Your task to perform on an android device: clear all cookies in the chrome app Image 0: 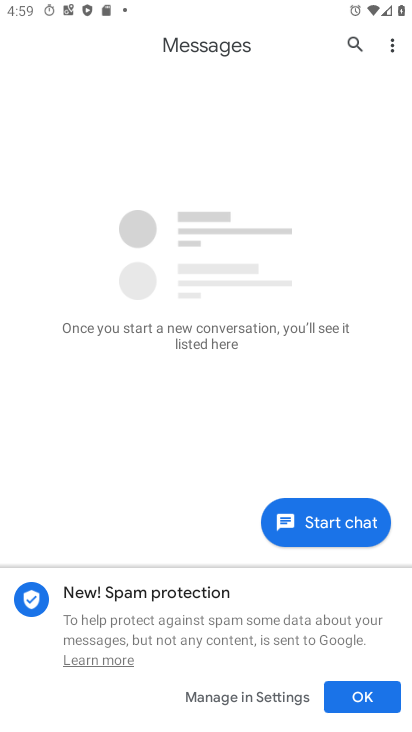
Step 0: press home button
Your task to perform on an android device: clear all cookies in the chrome app Image 1: 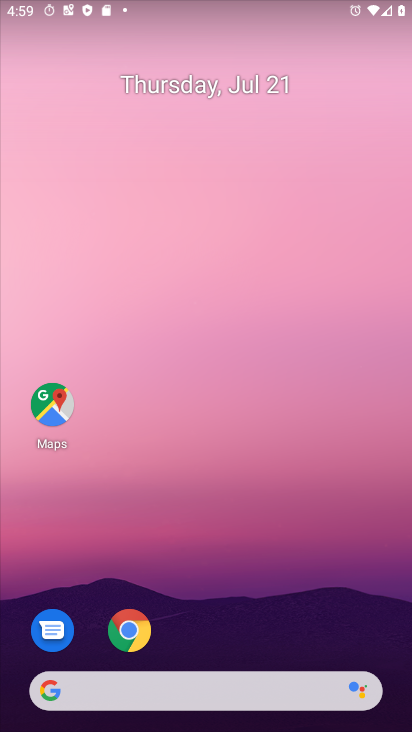
Step 1: click (129, 632)
Your task to perform on an android device: clear all cookies in the chrome app Image 2: 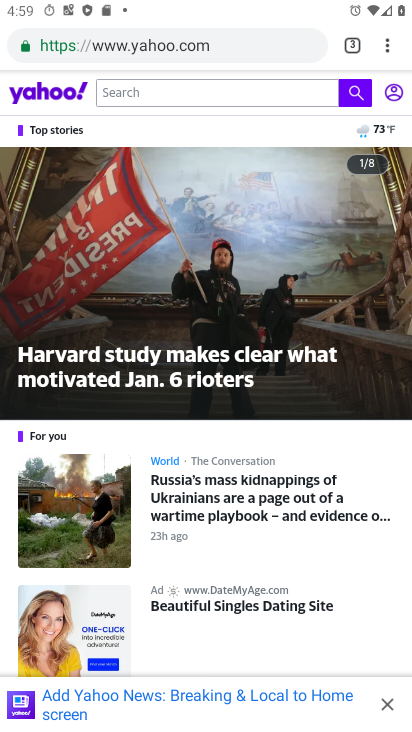
Step 2: click (389, 47)
Your task to perform on an android device: clear all cookies in the chrome app Image 3: 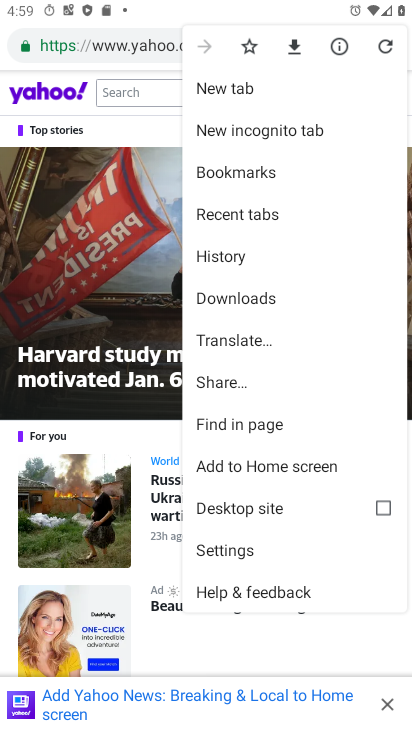
Step 3: click (242, 553)
Your task to perform on an android device: clear all cookies in the chrome app Image 4: 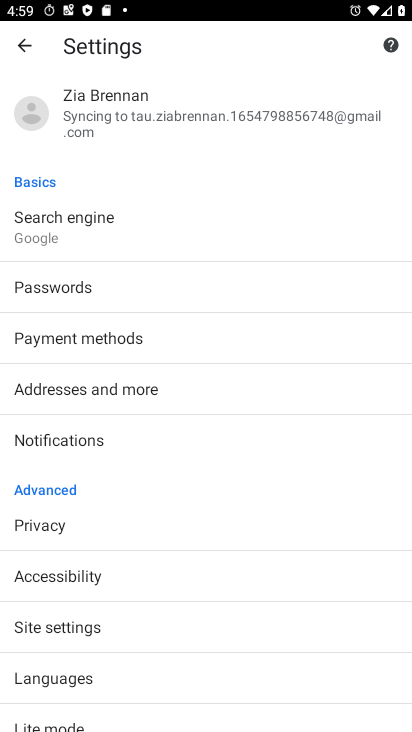
Step 4: click (65, 528)
Your task to perform on an android device: clear all cookies in the chrome app Image 5: 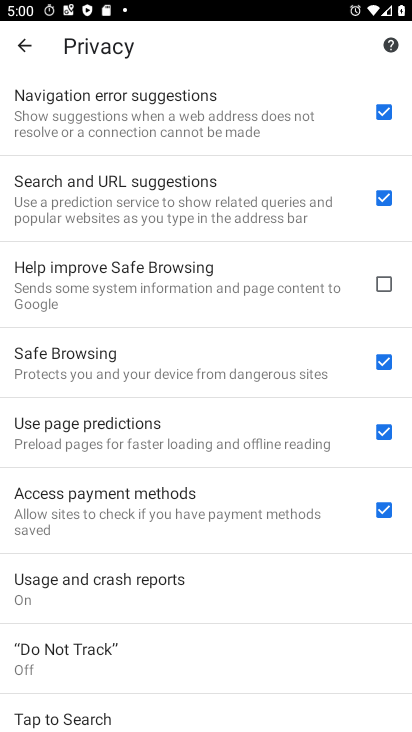
Step 5: drag from (147, 620) to (259, 438)
Your task to perform on an android device: clear all cookies in the chrome app Image 6: 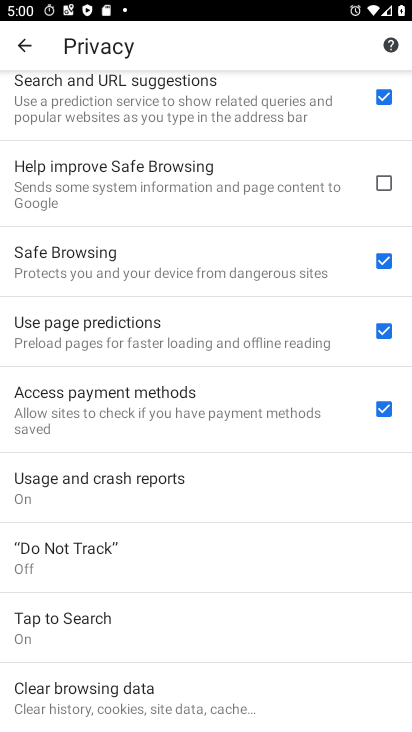
Step 6: click (116, 700)
Your task to perform on an android device: clear all cookies in the chrome app Image 7: 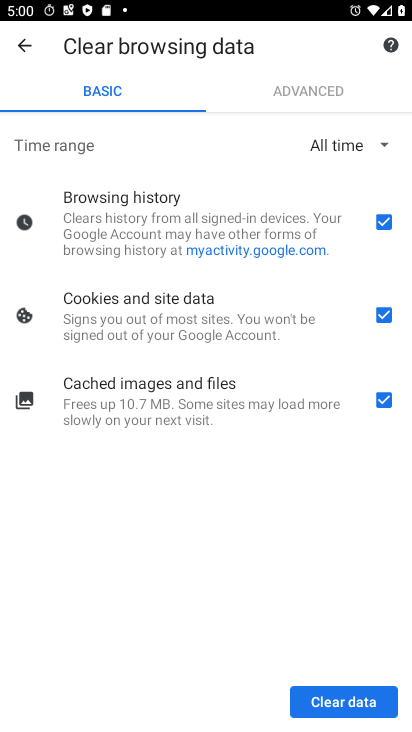
Step 7: click (389, 225)
Your task to perform on an android device: clear all cookies in the chrome app Image 8: 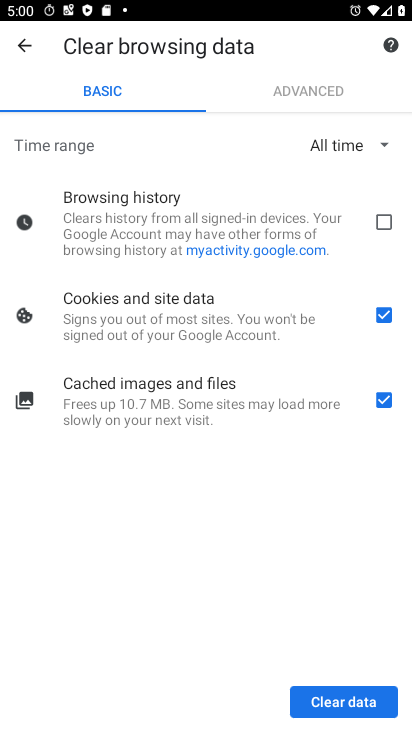
Step 8: click (379, 398)
Your task to perform on an android device: clear all cookies in the chrome app Image 9: 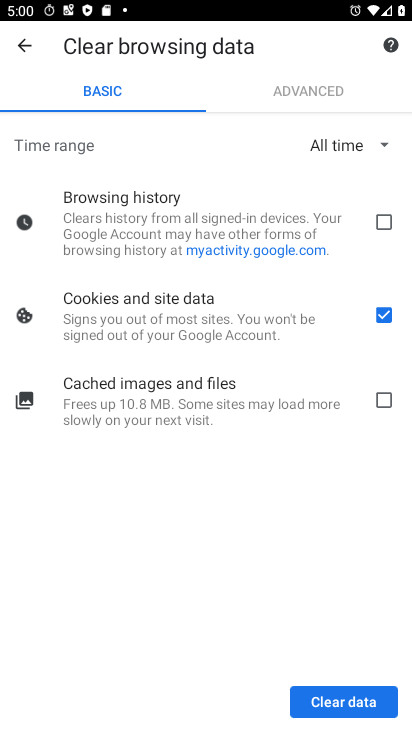
Step 9: click (351, 695)
Your task to perform on an android device: clear all cookies in the chrome app Image 10: 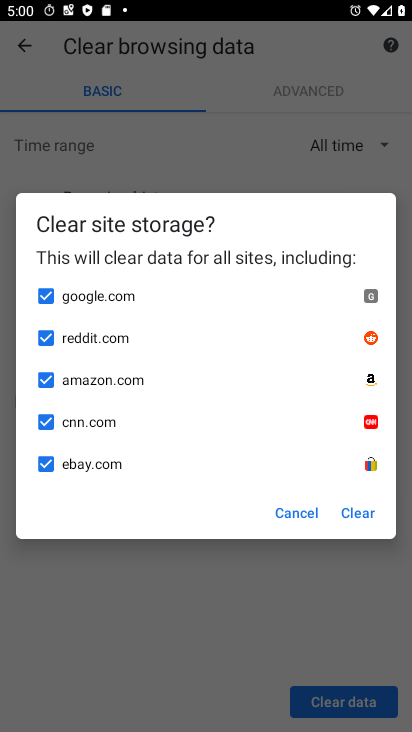
Step 10: click (354, 504)
Your task to perform on an android device: clear all cookies in the chrome app Image 11: 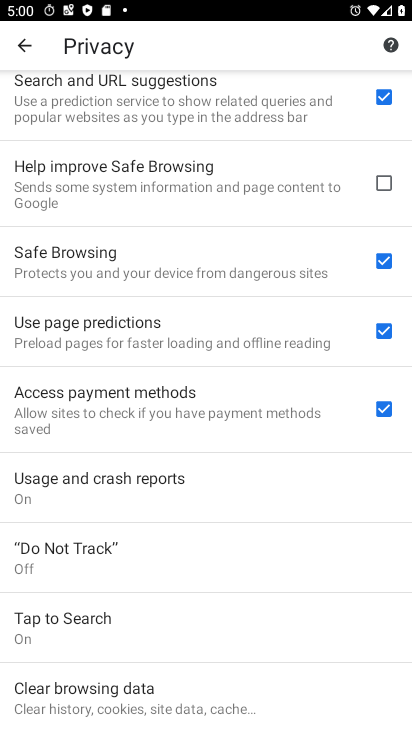
Step 11: task complete